Your task to perform on an android device: Search for the best rated kitchen reno kits on Lowes.com Image 0: 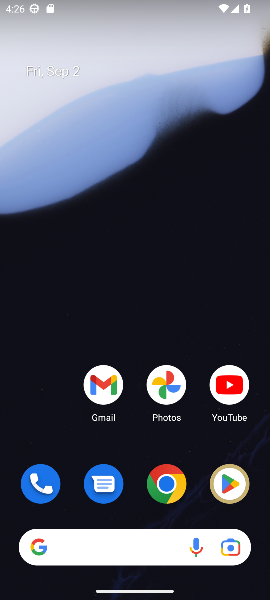
Step 0: click (174, 484)
Your task to perform on an android device: Search for the best rated kitchen reno kits on Lowes.com Image 1: 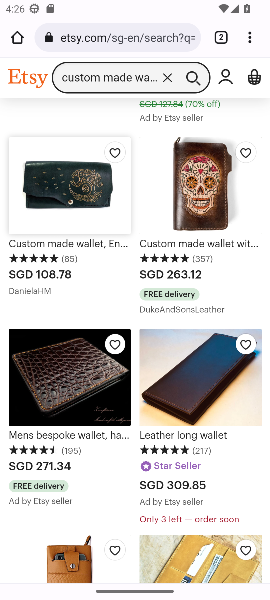
Step 1: click (147, 37)
Your task to perform on an android device: Search for the best rated kitchen reno kits on Lowes.com Image 2: 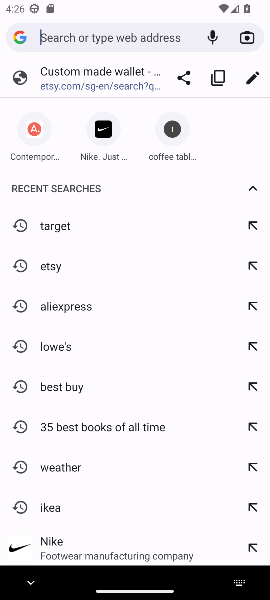
Step 2: type "Lowes.com"
Your task to perform on an android device: Search for the best rated kitchen reno kits on Lowes.com Image 3: 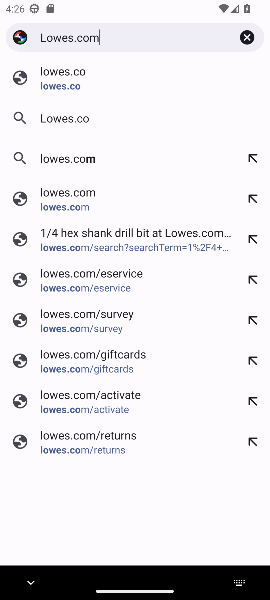
Step 3: press enter
Your task to perform on an android device: Search for the best rated kitchen reno kits on Lowes.com Image 4: 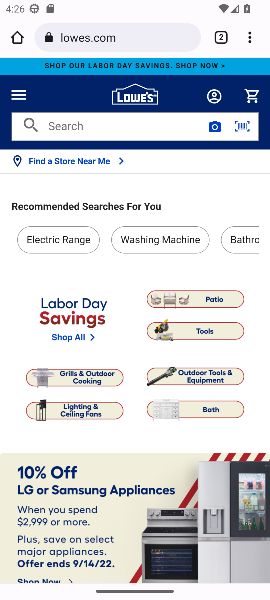
Step 4: click (124, 118)
Your task to perform on an android device: Search for the best rated kitchen reno kits on Lowes.com Image 5: 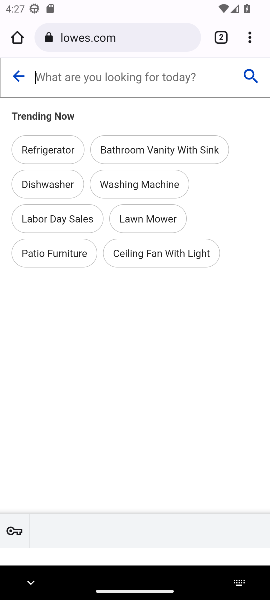
Step 5: type " kitchen reno kits"
Your task to perform on an android device: Search for the best rated kitchen reno kits on Lowes.com Image 6: 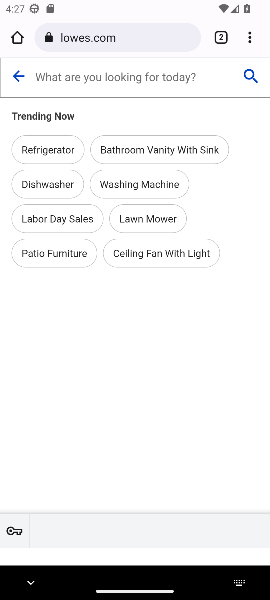
Step 6: press enter
Your task to perform on an android device: Search for the best rated kitchen reno kits on Lowes.com Image 7: 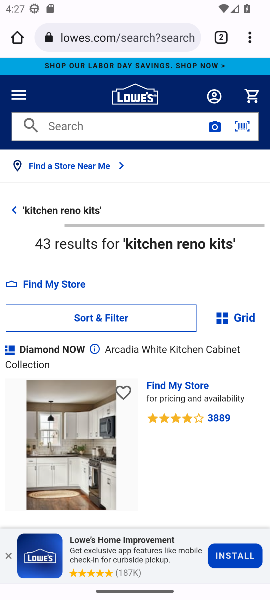
Step 7: drag from (148, 473) to (229, 251)
Your task to perform on an android device: Search for the best rated kitchen reno kits on Lowes.com Image 8: 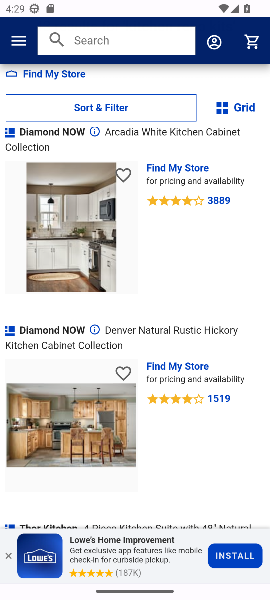
Step 8: click (232, 245)
Your task to perform on an android device: Search for the best rated kitchen reno kits on Lowes.com Image 9: 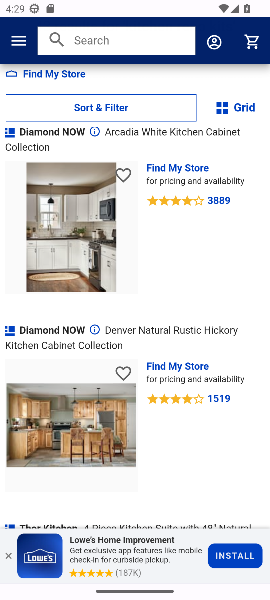
Step 9: task complete